Your task to perform on an android device: toggle location history Image 0: 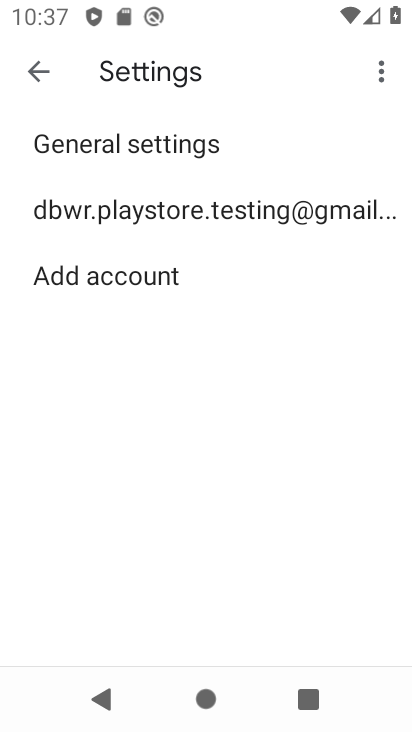
Step 0: press back button
Your task to perform on an android device: toggle location history Image 1: 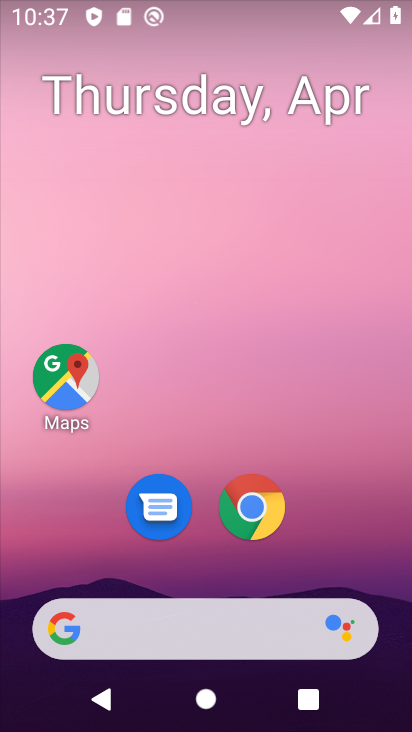
Step 1: drag from (174, 345) to (227, 58)
Your task to perform on an android device: toggle location history Image 2: 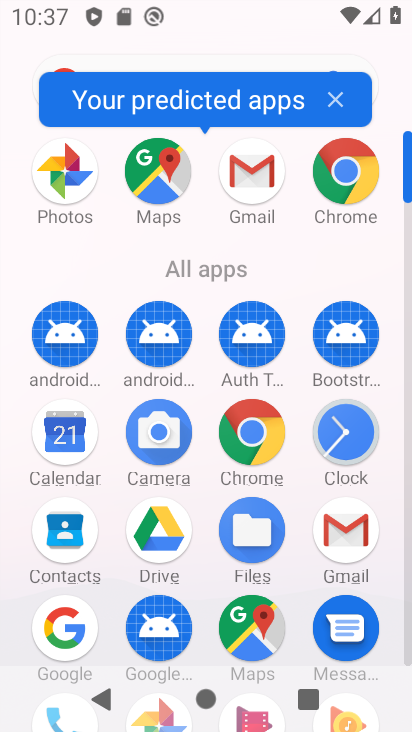
Step 2: drag from (195, 659) to (273, 335)
Your task to perform on an android device: toggle location history Image 3: 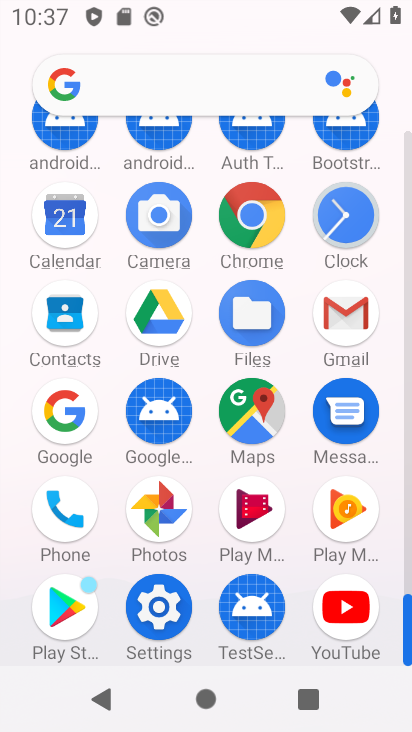
Step 3: click (158, 637)
Your task to perform on an android device: toggle location history Image 4: 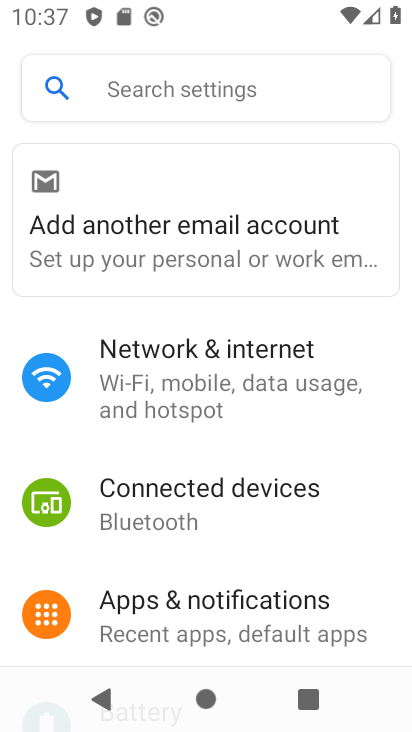
Step 4: drag from (235, 584) to (306, 248)
Your task to perform on an android device: toggle location history Image 5: 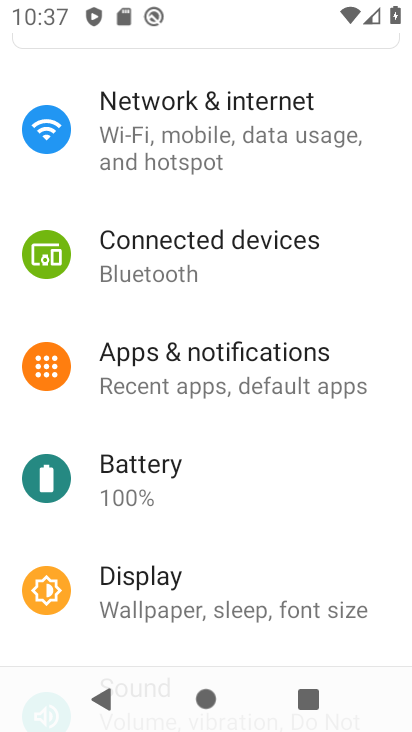
Step 5: drag from (135, 606) to (269, 215)
Your task to perform on an android device: toggle location history Image 6: 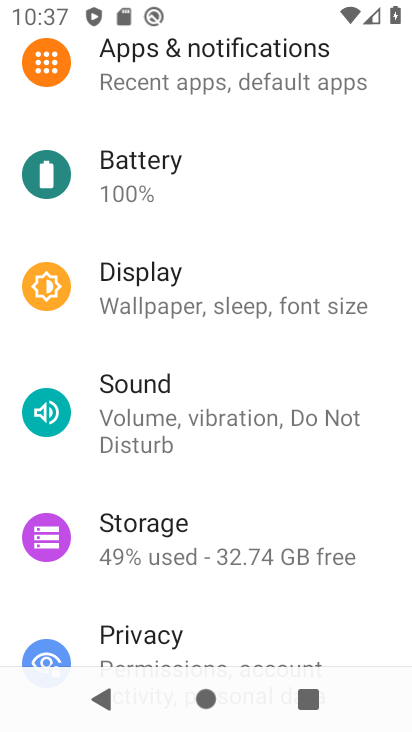
Step 6: drag from (183, 626) to (297, 187)
Your task to perform on an android device: toggle location history Image 7: 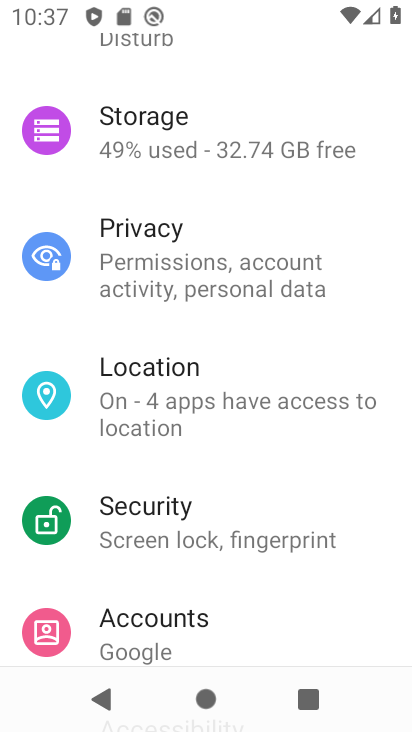
Step 7: click (208, 404)
Your task to perform on an android device: toggle location history Image 8: 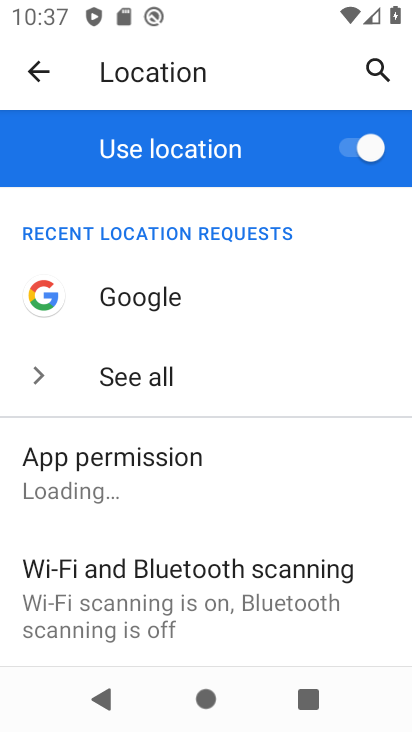
Step 8: drag from (198, 623) to (325, 256)
Your task to perform on an android device: toggle location history Image 9: 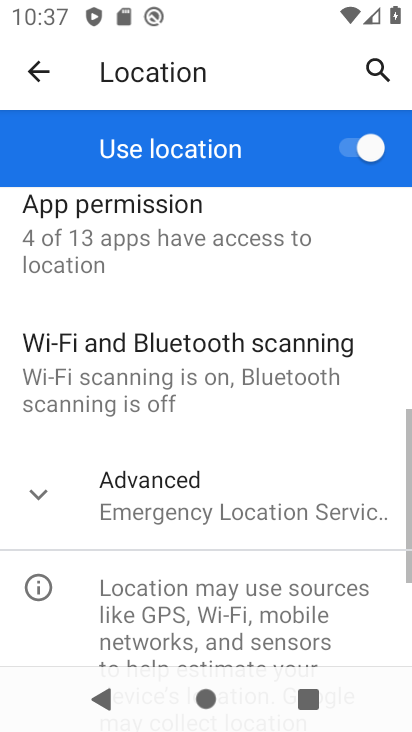
Step 9: click (236, 458)
Your task to perform on an android device: toggle location history Image 10: 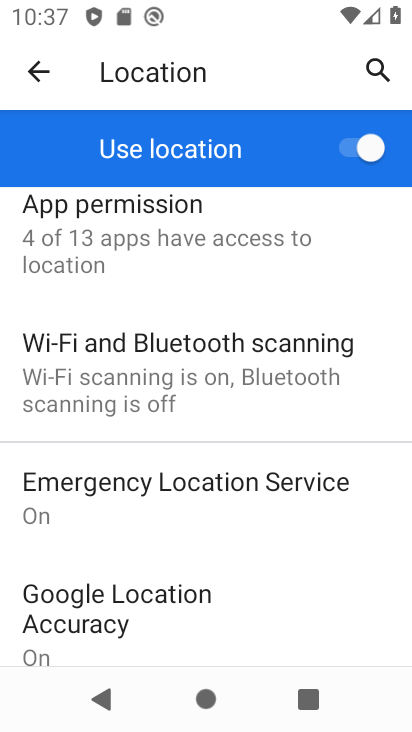
Step 10: drag from (183, 641) to (278, 242)
Your task to perform on an android device: toggle location history Image 11: 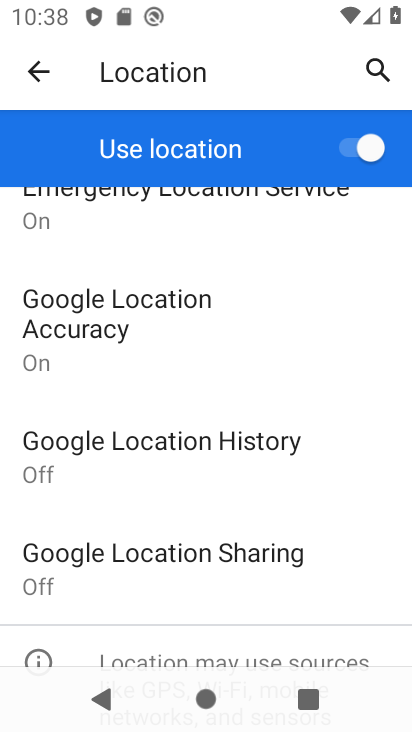
Step 11: click (197, 462)
Your task to perform on an android device: toggle location history Image 12: 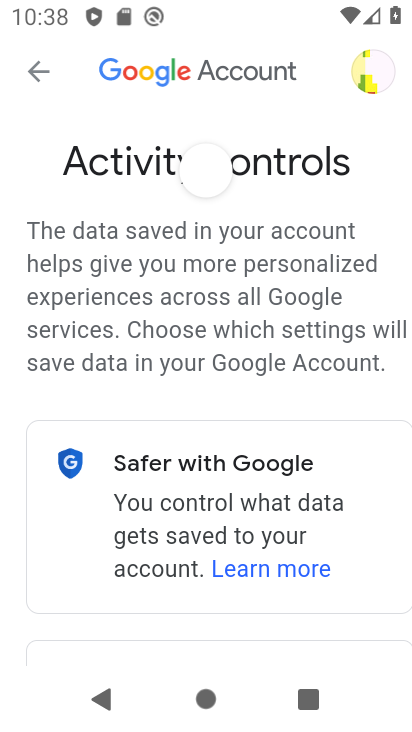
Step 12: drag from (219, 577) to (345, 183)
Your task to perform on an android device: toggle location history Image 13: 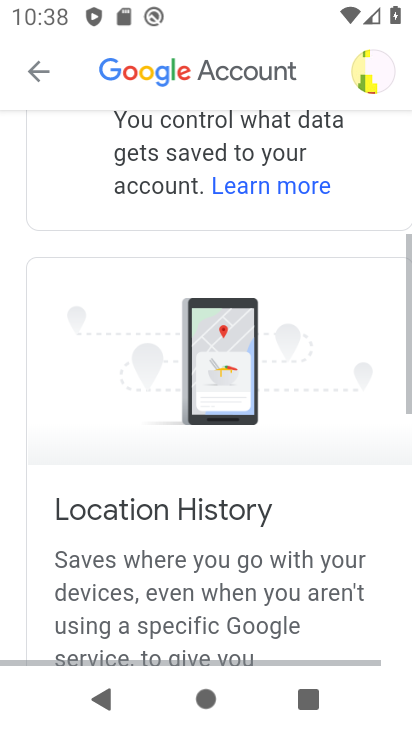
Step 13: drag from (225, 519) to (372, 158)
Your task to perform on an android device: toggle location history Image 14: 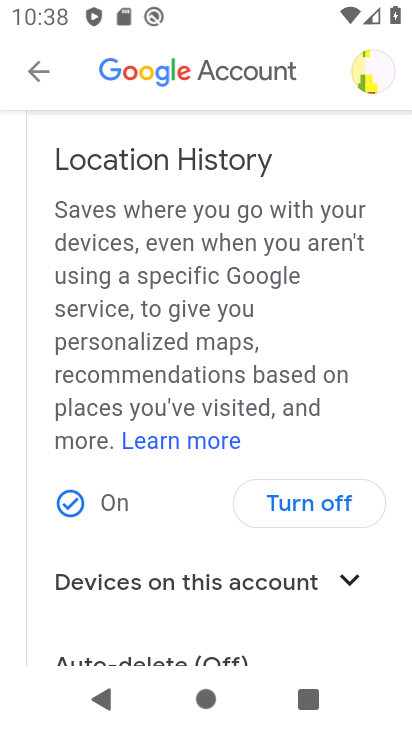
Step 14: click (309, 513)
Your task to perform on an android device: toggle location history Image 15: 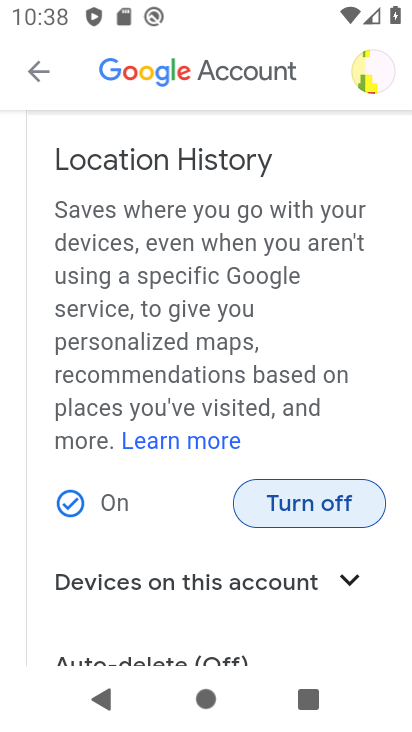
Step 15: click (300, 511)
Your task to perform on an android device: toggle location history Image 16: 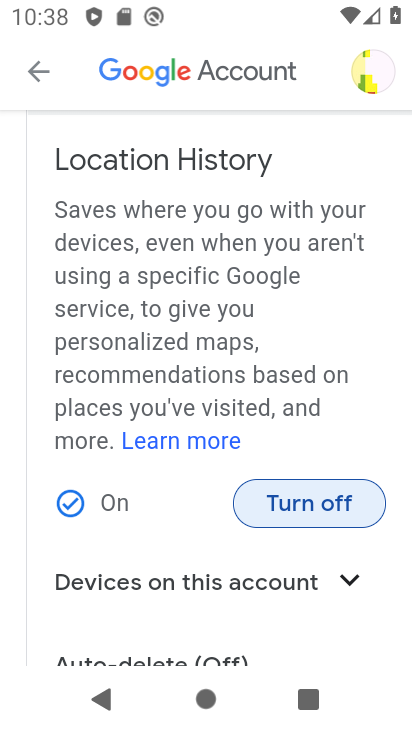
Step 16: click (360, 505)
Your task to perform on an android device: toggle location history Image 17: 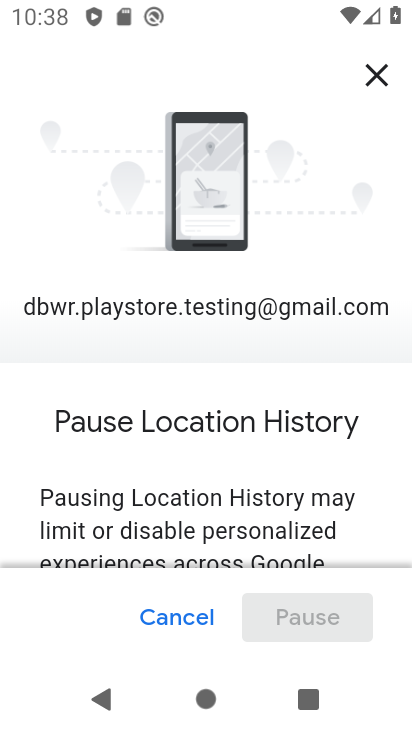
Step 17: drag from (208, 539) to (279, 129)
Your task to perform on an android device: toggle location history Image 18: 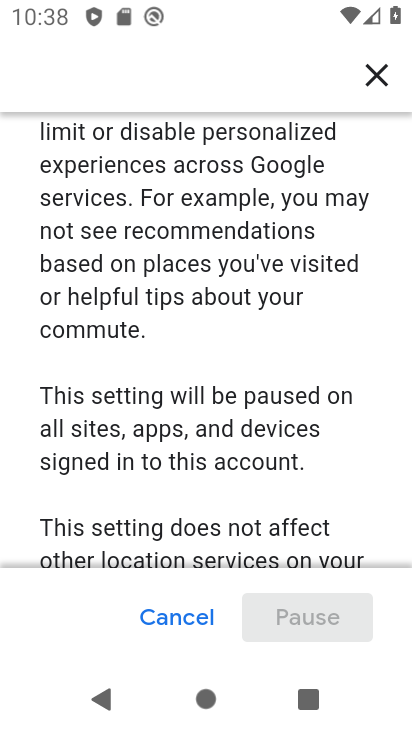
Step 18: drag from (298, 503) to (374, 172)
Your task to perform on an android device: toggle location history Image 19: 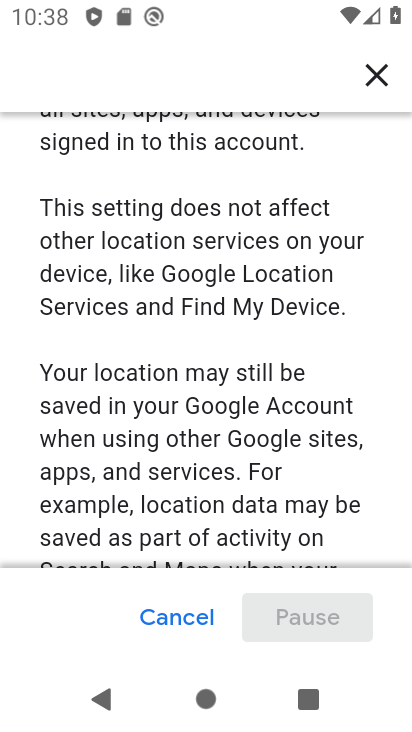
Step 19: drag from (268, 561) to (389, 187)
Your task to perform on an android device: toggle location history Image 20: 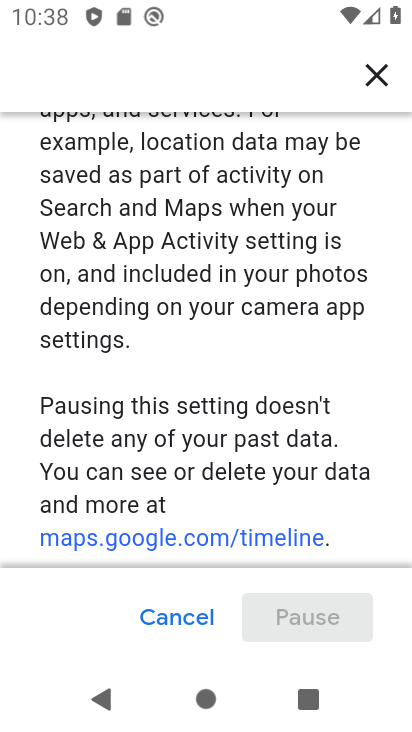
Step 20: drag from (247, 535) to (350, 163)
Your task to perform on an android device: toggle location history Image 21: 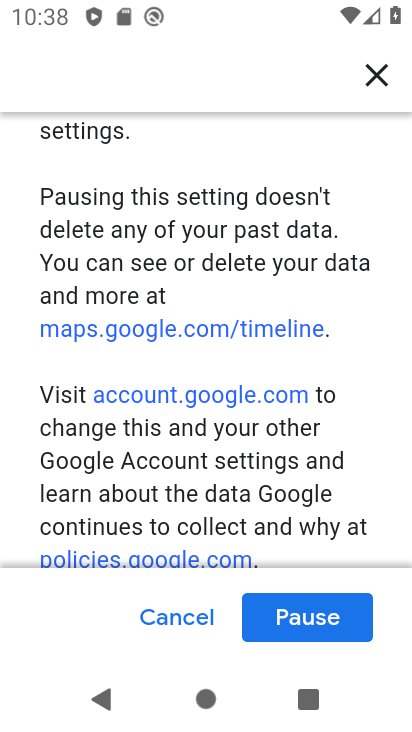
Step 21: click (316, 633)
Your task to perform on an android device: toggle location history Image 22: 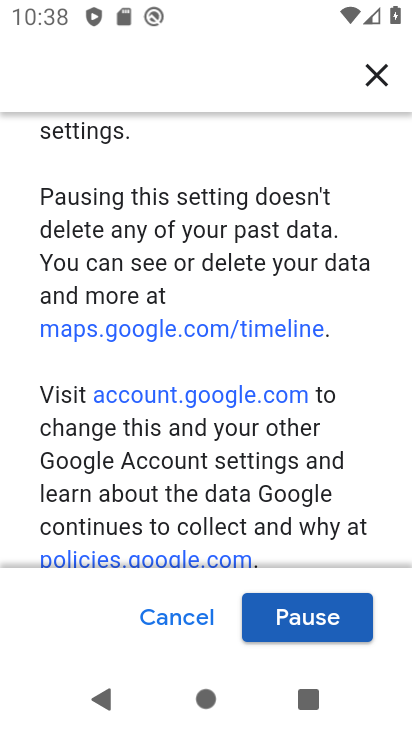
Step 22: click (311, 621)
Your task to perform on an android device: toggle location history Image 23: 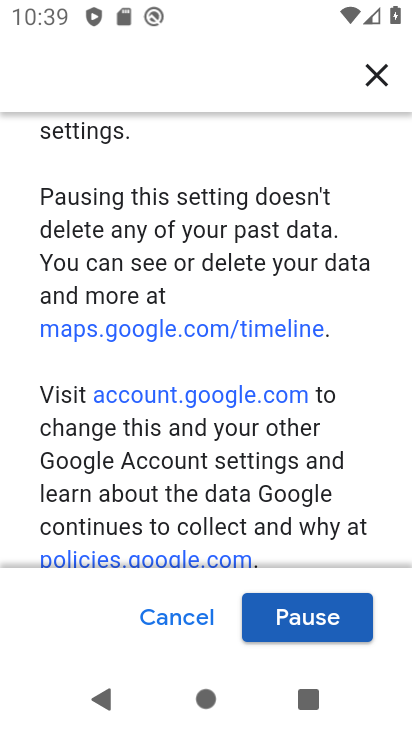
Step 23: click (311, 599)
Your task to perform on an android device: toggle location history Image 24: 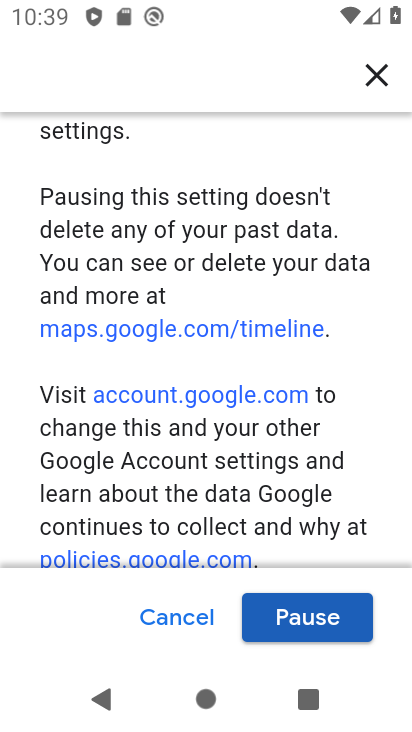
Step 24: click (301, 630)
Your task to perform on an android device: toggle location history Image 25: 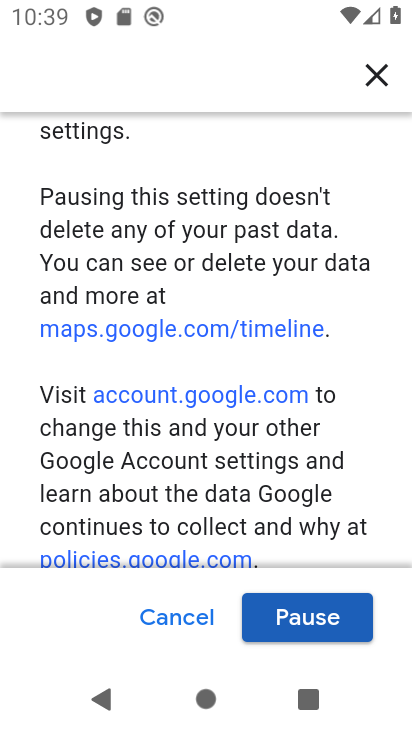
Step 25: drag from (194, 434) to (328, 125)
Your task to perform on an android device: toggle location history Image 26: 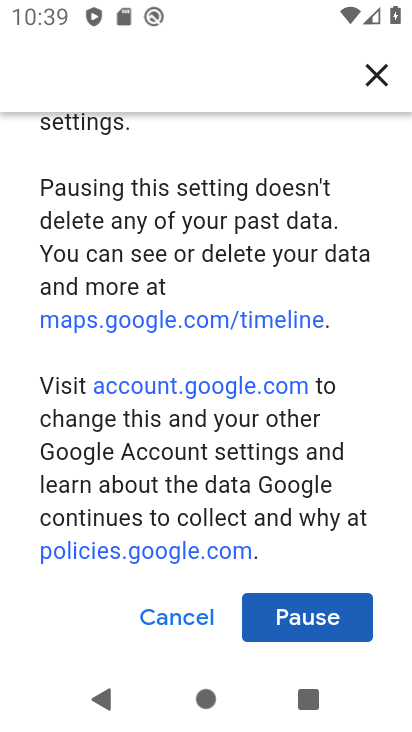
Step 26: click (346, 632)
Your task to perform on an android device: toggle location history Image 27: 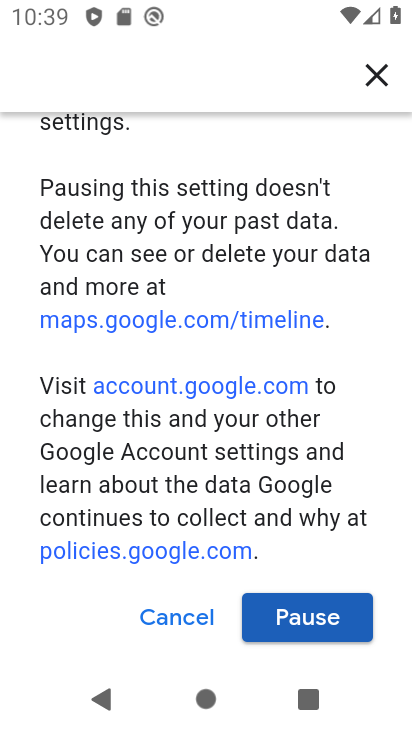
Step 27: click (296, 631)
Your task to perform on an android device: toggle location history Image 28: 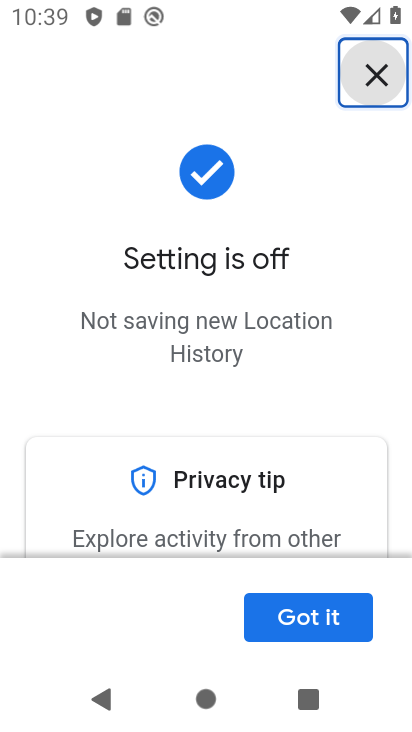
Step 28: click (312, 619)
Your task to perform on an android device: toggle location history Image 29: 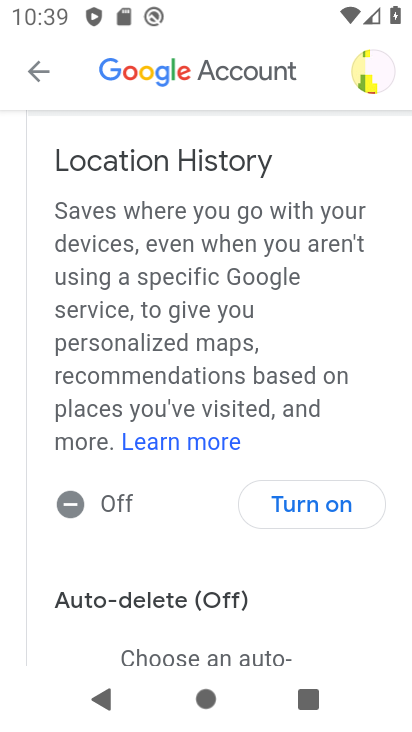
Step 29: task complete